Your task to perform on an android device: turn off notifications settings in the gmail app Image 0: 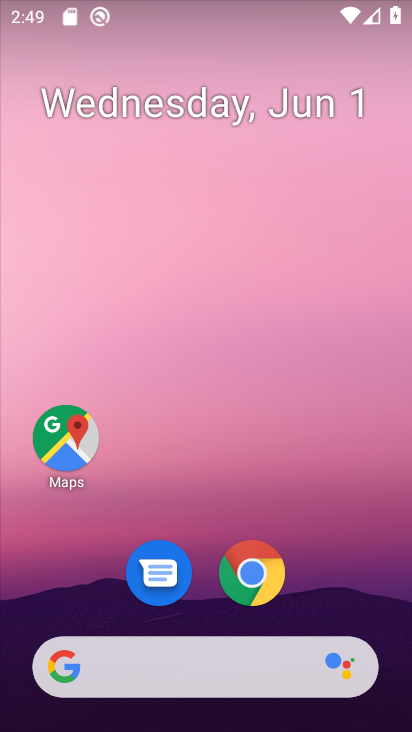
Step 0: drag from (362, 612) to (273, 247)
Your task to perform on an android device: turn off notifications settings in the gmail app Image 1: 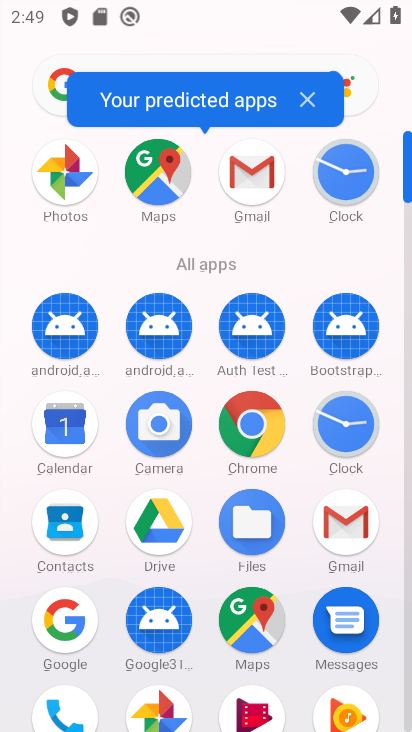
Step 1: click (266, 186)
Your task to perform on an android device: turn off notifications settings in the gmail app Image 2: 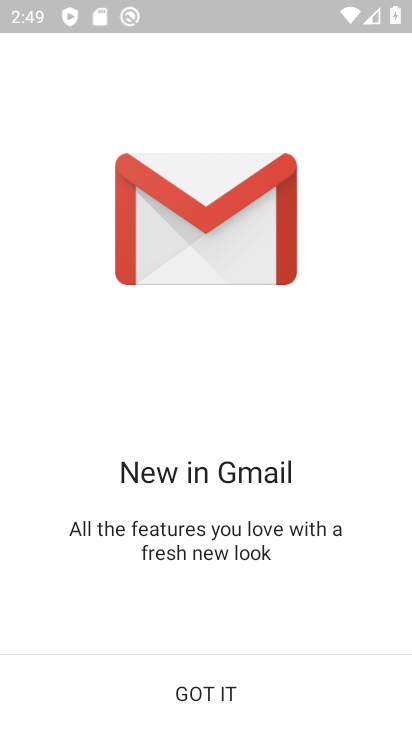
Step 2: click (219, 688)
Your task to perform on an android device: turn off notifications settings in the gmail app Image 3: 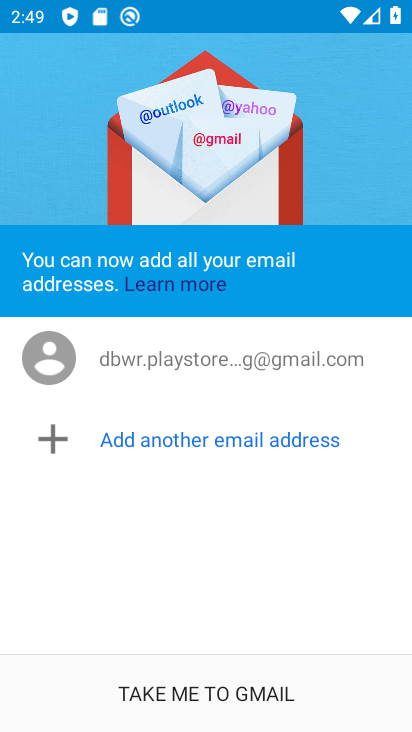
Step 3: click (219, 688)
Your task to perform on an android device: turn off notifications settings in the gmail app Image 4: 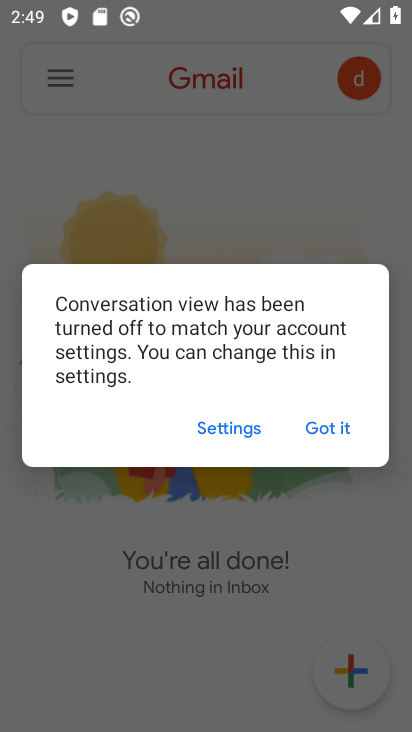
Step 4: click (354, 429)
Your task to perform on an android device: turn off notifications settings in the gmail app Image 5: 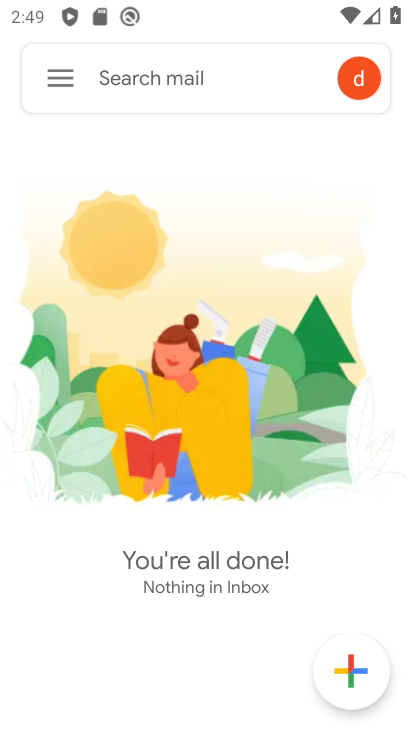
Step 5: click (64, 85)
Your task to perform on an android device: turn off notifications settings in the gmail app Image 6: 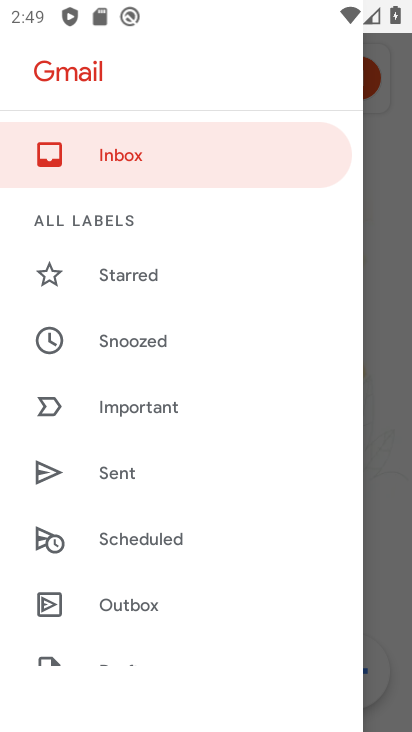
Step 6: drag from (137, 649) to (129, 149)
Your task to perform on an android device: turn off notifications settings in the gmail app Image 7: 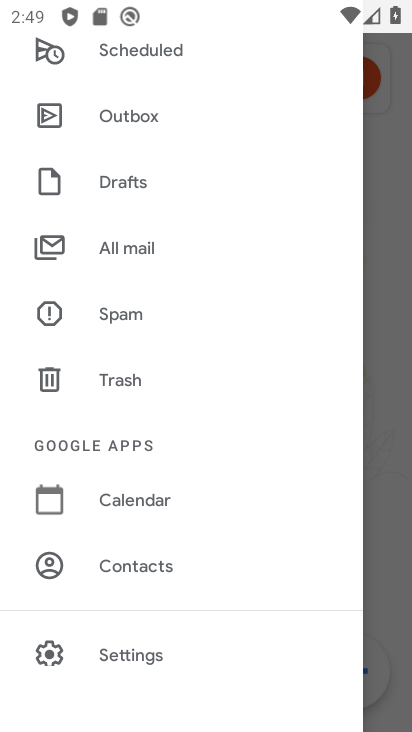
Step 7: click (131, 655)
Your task to perform on an android device: turn off notifications settings in the gmail app Image 8: 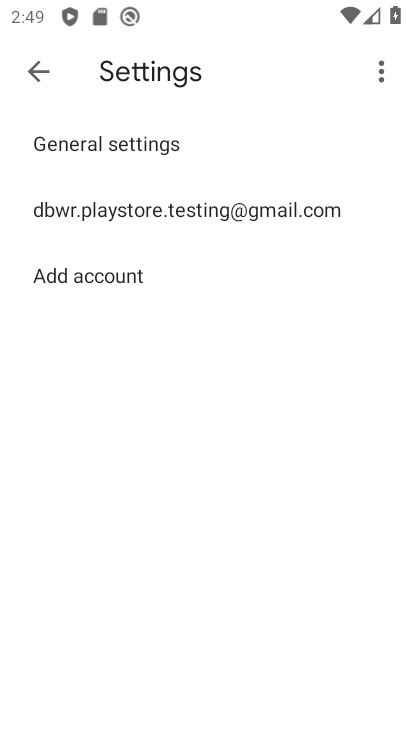
Step 8: click (326, 204)
Your task to perform on an android device: turn off notifications settings in the gmail app Image 9: 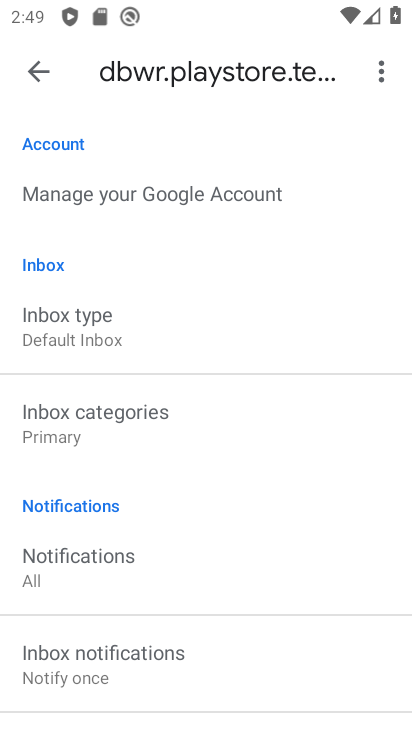
Step 9: drag from (206, 633) to (168, 225)
Your task to perform on an android device: turn off notifications settings in the gmail app Image 10: 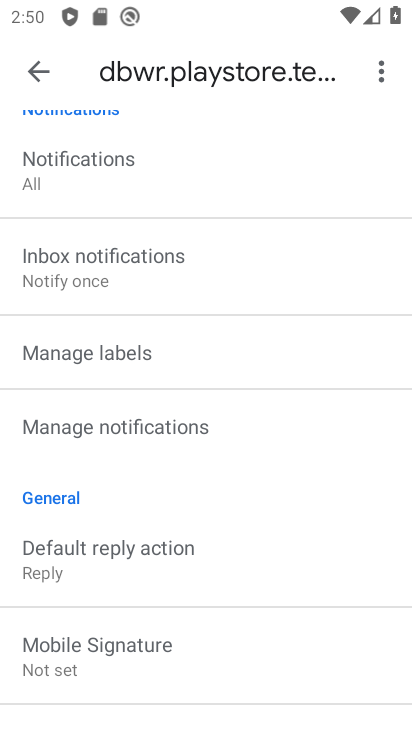
Step 10: click (189, 429)
Your task to perform on an android device: turn off notifications settings in the gmail app Image 11: 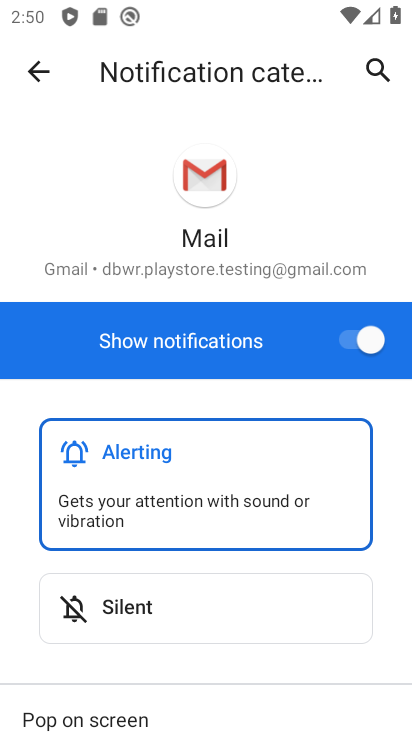
Step 11: task complete